Your task to perform on an android device: Open Wikipedia Image 0: 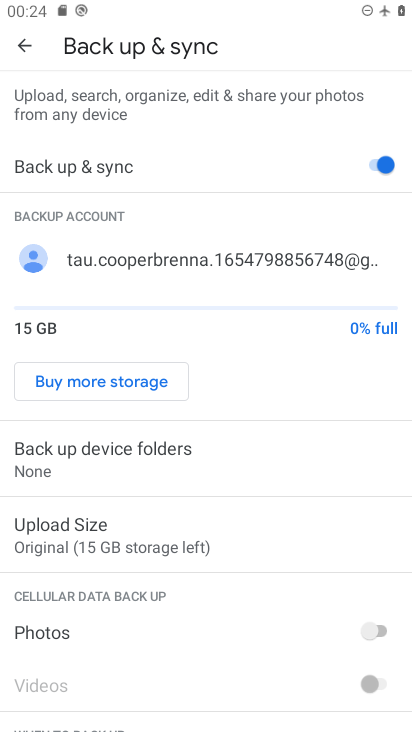
Step 0: press home button
Your task to perform on an android device: Open Wikipedia Image 1: 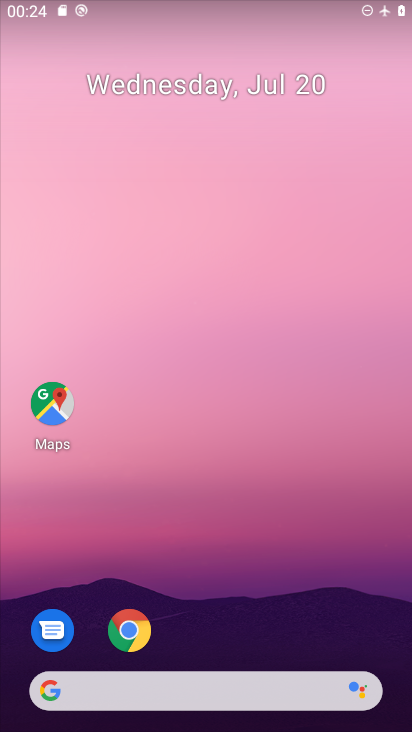
Step 1: click (134, 638)
Your task to perform on an android device: Open Wikipedia Image 2: 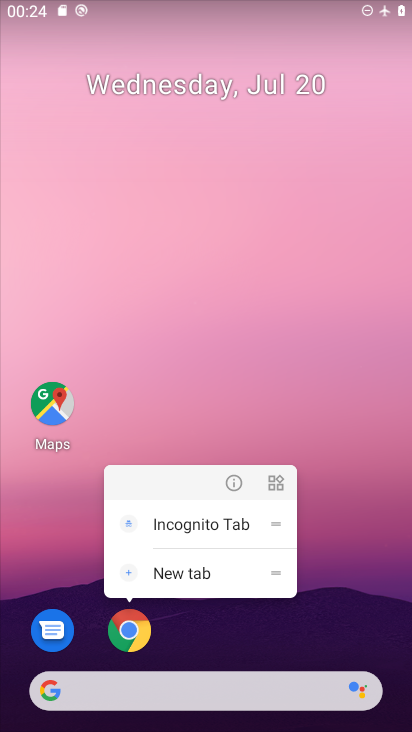
Step 2: click (128, 616)
Your task to perform on an android device: Open Wikipedia Image 3: 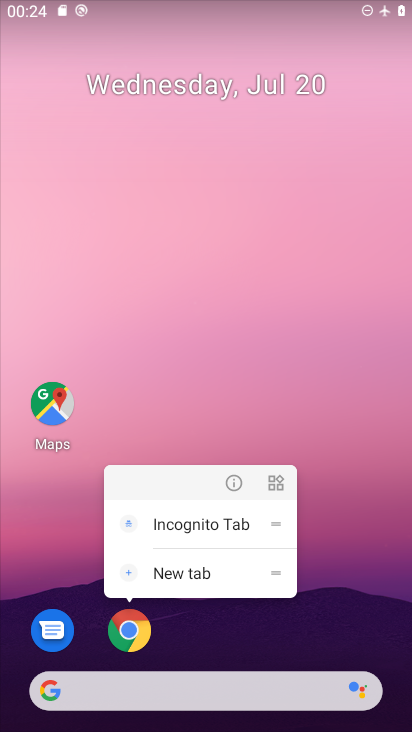
Step 3: click (128, 616)
Your task to perform on an android device: Open Wikipedia Image 4: 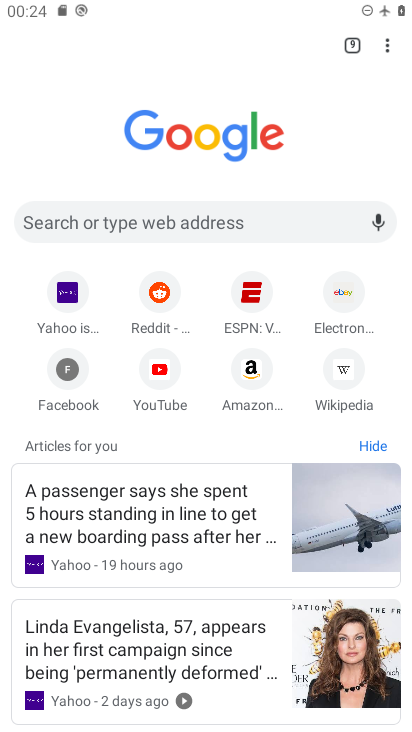
Step 4: click (324, 380)
Your task to perform on an android device: Open Wikipedia Image 5: 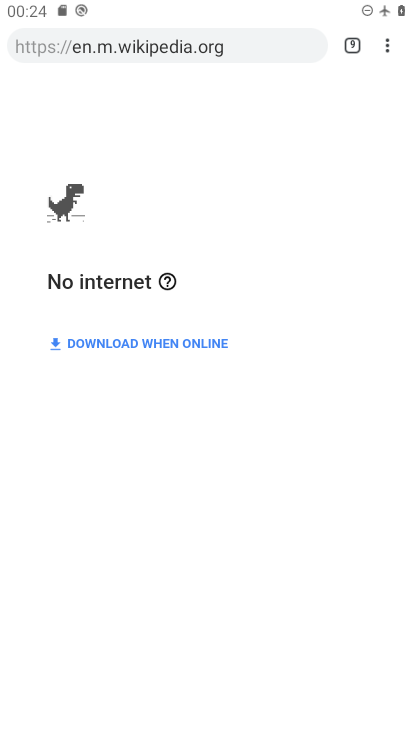
Step 5: task complete